Your task to perform on an android device: find snoozed emails in the gmail app Image 0: 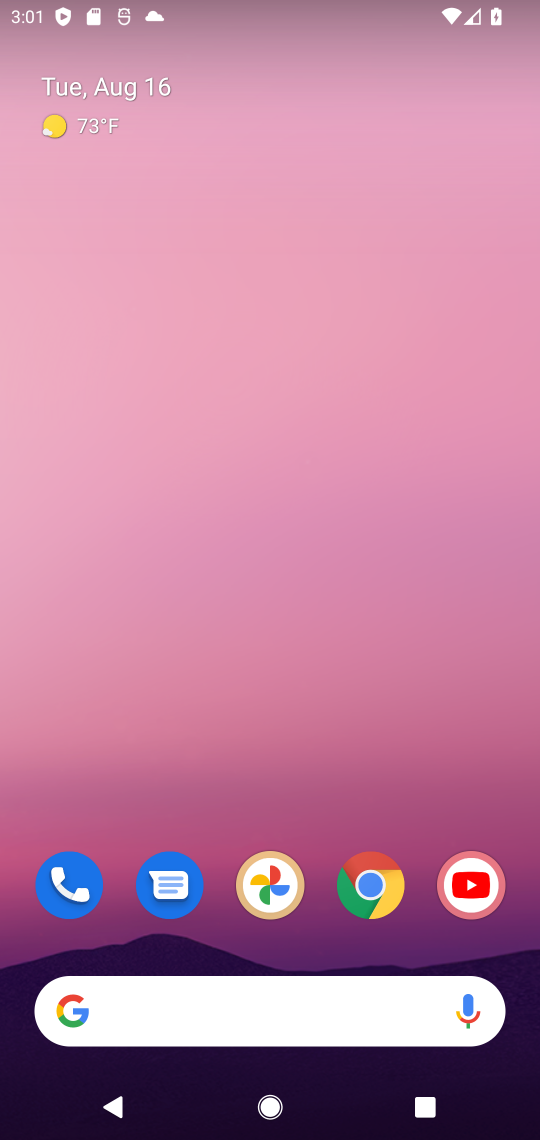
Step 0: drag from (254, 928) to (239, 364)
Your task to perform on an android device: find snoozed emails in the gmail app Image 1: 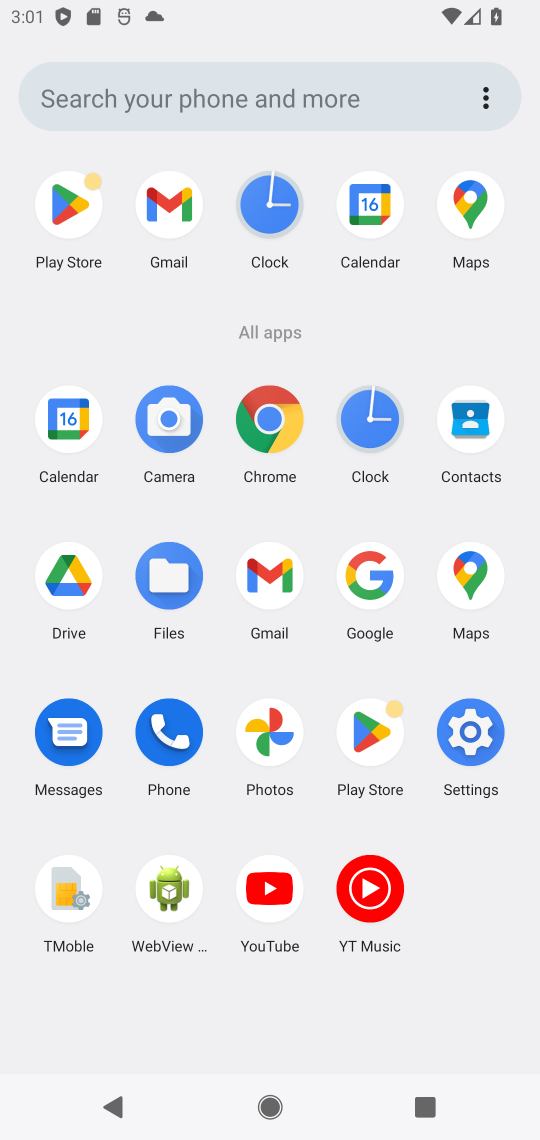
Step 1: click (279, 595)
Your task to perform on an android device: find snoozed emails in the gmail app Image 2: 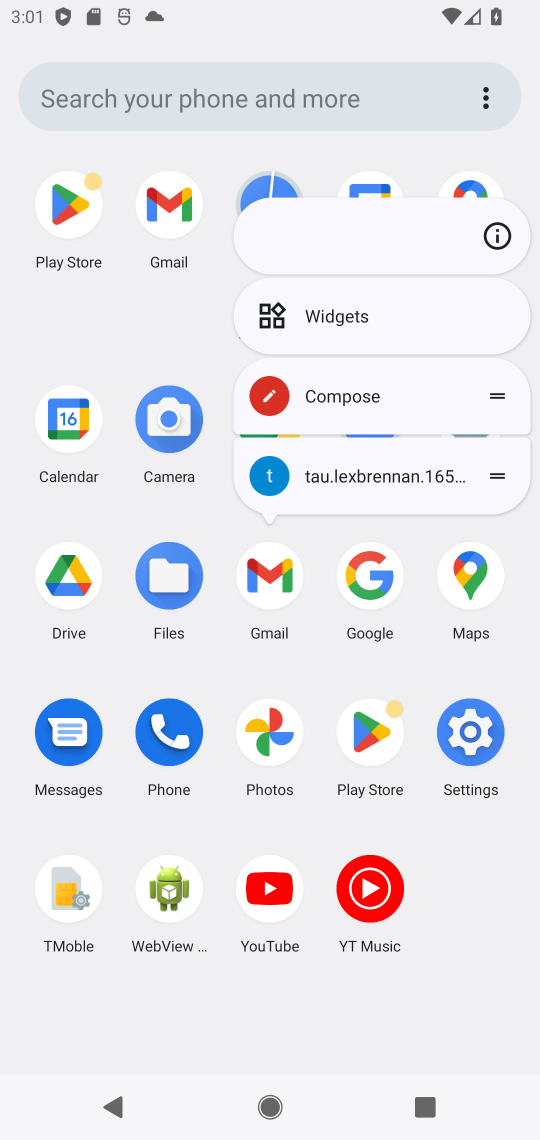
Step 2: click (269, 562)
Your task to perform on an android device: find snoozed emails in the gmail app Image 3: 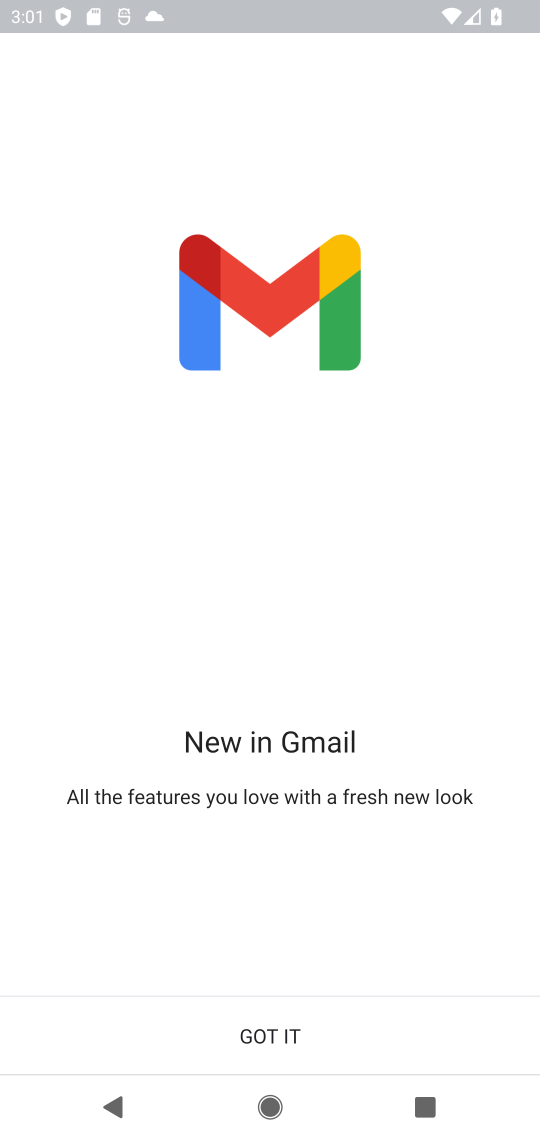
Step 3: click (278, 1014)
Your task to perform on an android device: find snoozed emails in the gmail app Image 4: 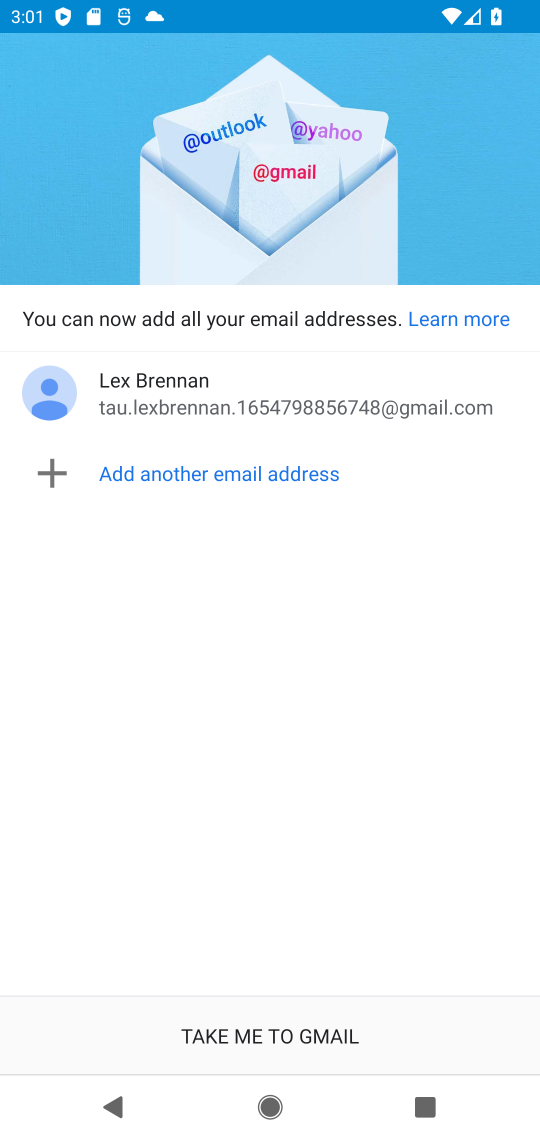
Step 4: click (296, 1034)
Your task to perform on an android device: find snoozed emails in the gmail app Image 5: 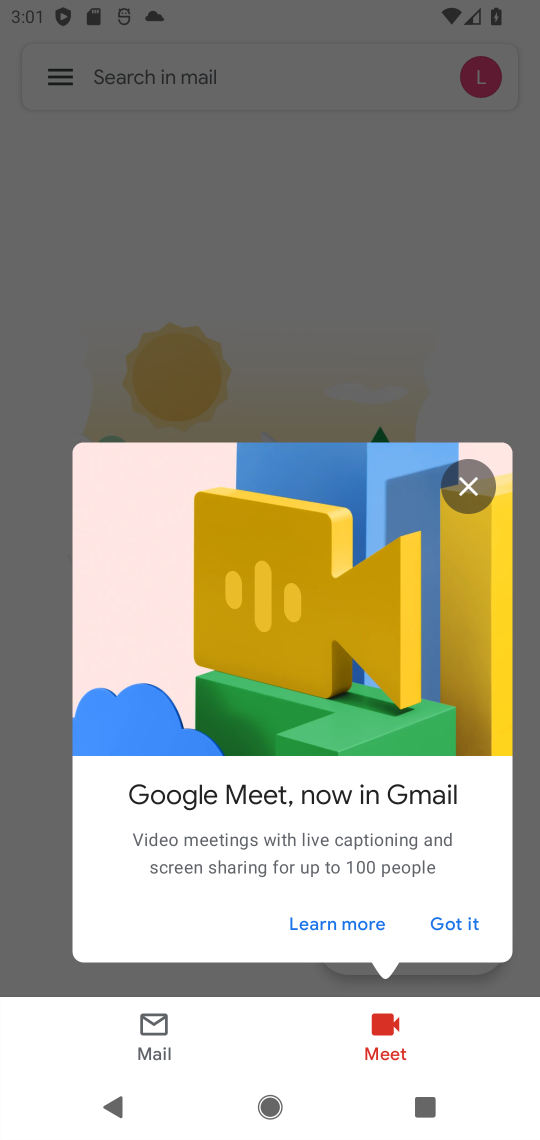
Step 5: click (468, 914)
Your task to perform on an android device: find snoozed emails in the gmail app Image 6: 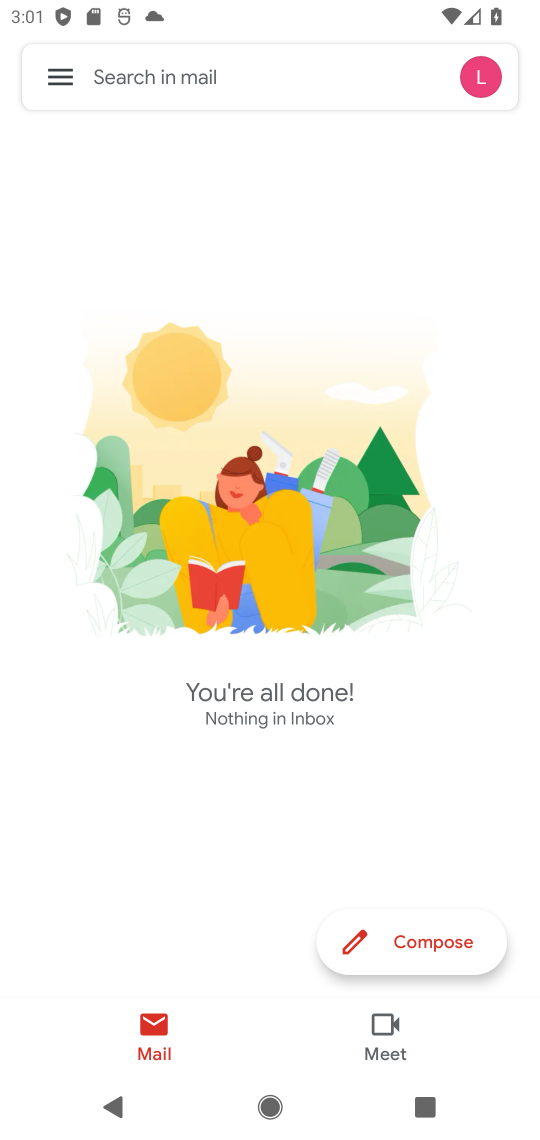
Step 6: click (73, 64)
Your task to perform on an android device: find snoozed emails in the gmail app Image 7: 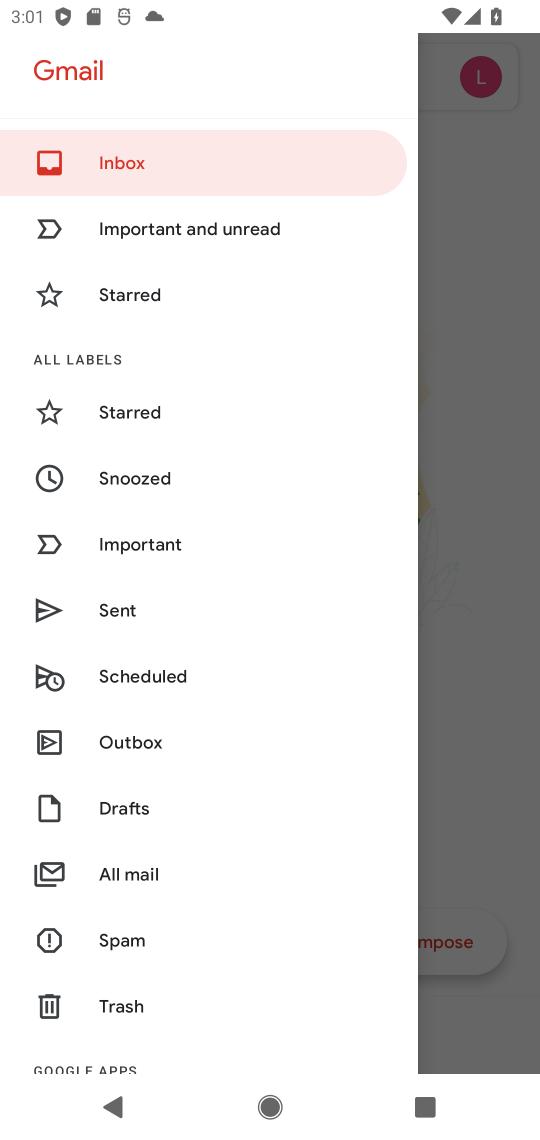
Step 7: click (168, 466)
Your task to perform on an android device: find snoozed emails in the gmail app Image 8: 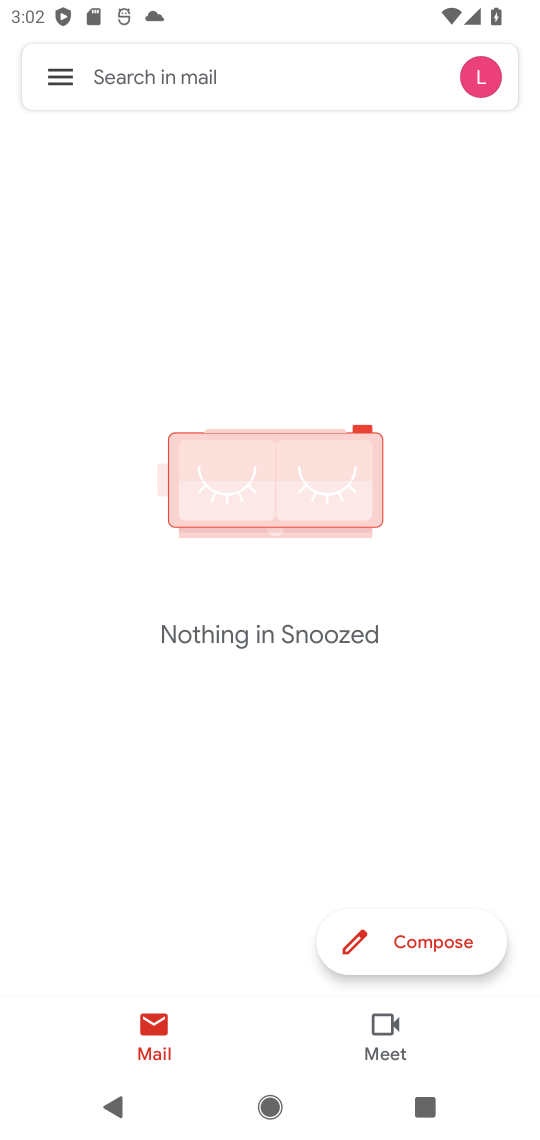
Step 8: task complete